Your task to perform on an android device: Open network settings Image 0: 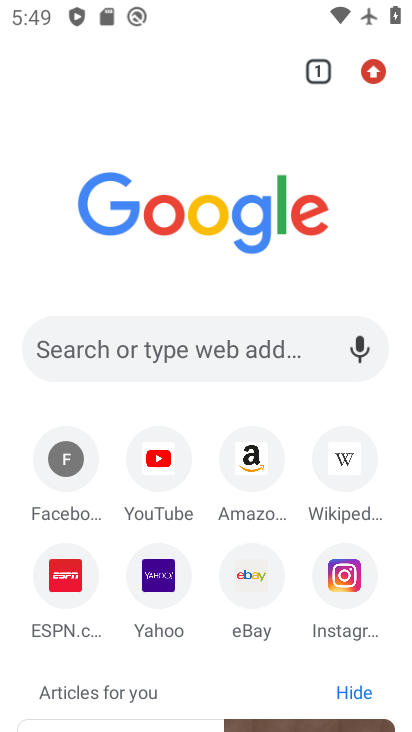
Step 0: press home button
Your task to perform on an android device: Open network settings Image 1: 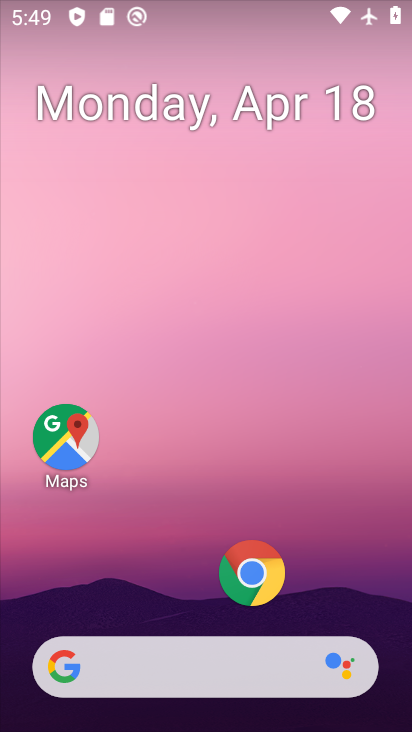
Step 1: drag from (174, 608) to (258, 130)
Your task to perform on an android device: Open network settings Image 2: 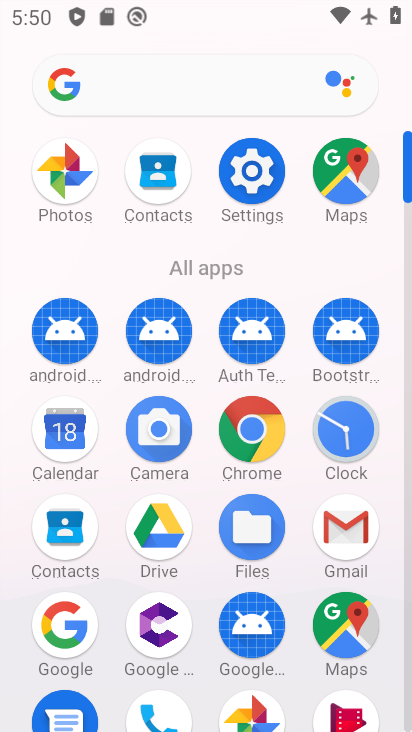
Step 2: click (253, 170)
Your task to perform on an android device: Open network settings Image 3: 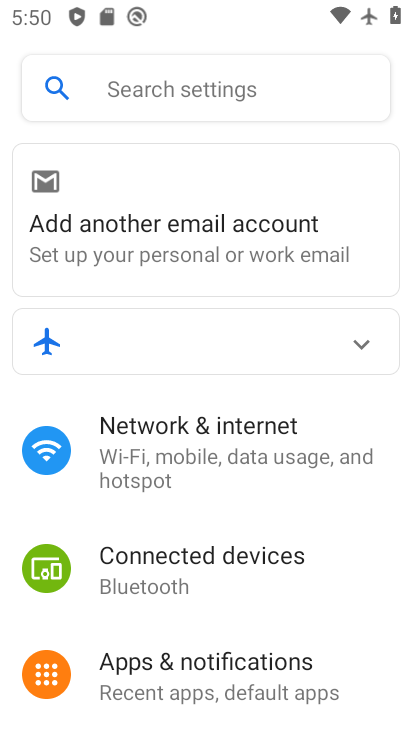
Step 3: click (185, 449)
Your task to perform on an android device: Open network settings Image 4: 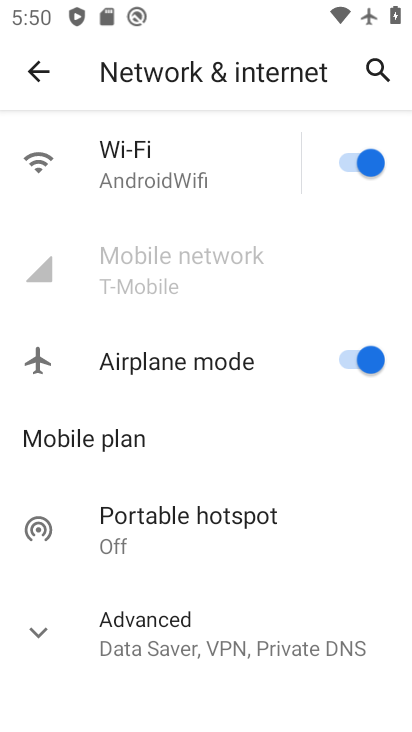
Step 4: drag from (240, 474) to (230, 305)
Your task to perform on an android device: Open network settings Image 5: 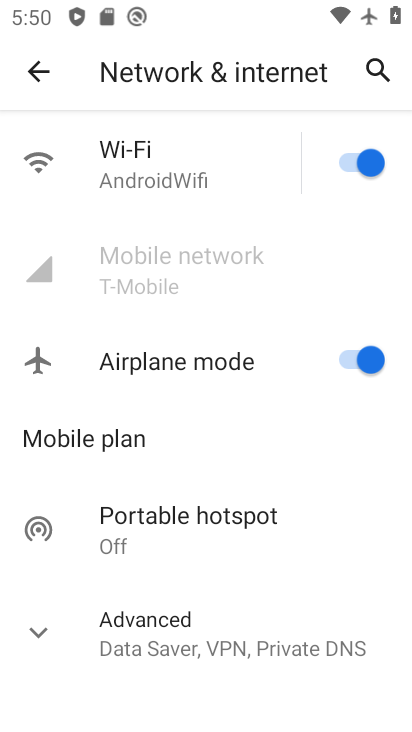
Step 5: click (344, 360)
Your task to perform on an android device: Open network settings Image 6: 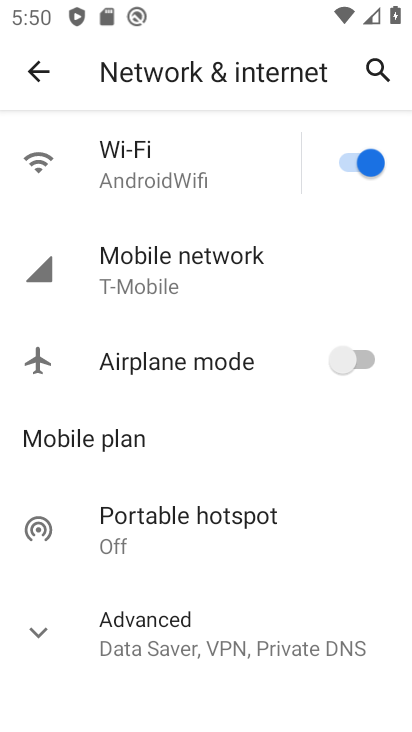
Step 6: task complete